Your task to perform on an android device: Search for seafood restaurants on Google Maps Image 0: 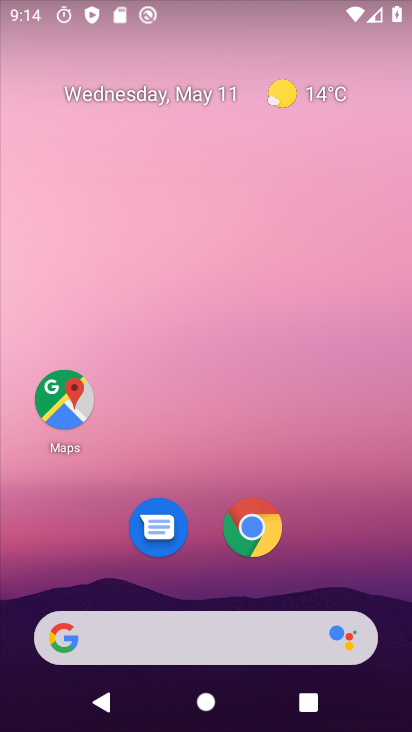
Step 0: drag from (264, 669) to (265, 146)
Your task to perform on an android device: Search for seafood restaurants on Google Maps Image 1: 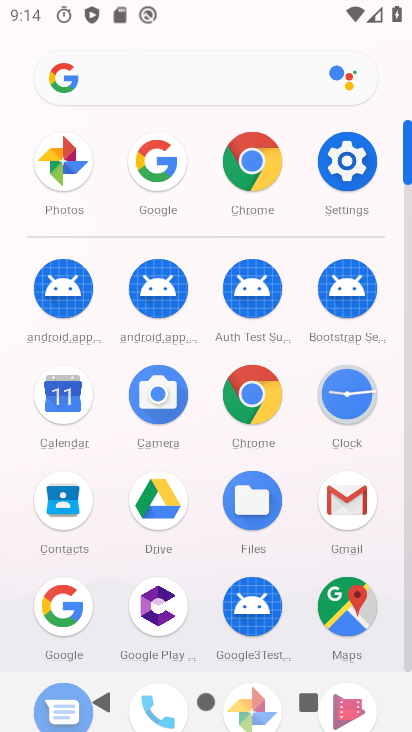
Step 1: click (360, 625)
Your task to perform on an android device: Search for seafood restaurants on Google Maps Image 2: 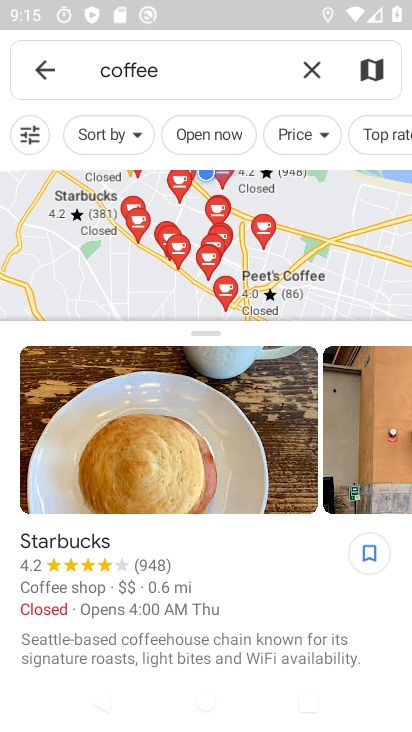
Step 2: click (320, 73)
Your task to perform on an android device: Search for seafood restaurants on Google Maps Image 3: 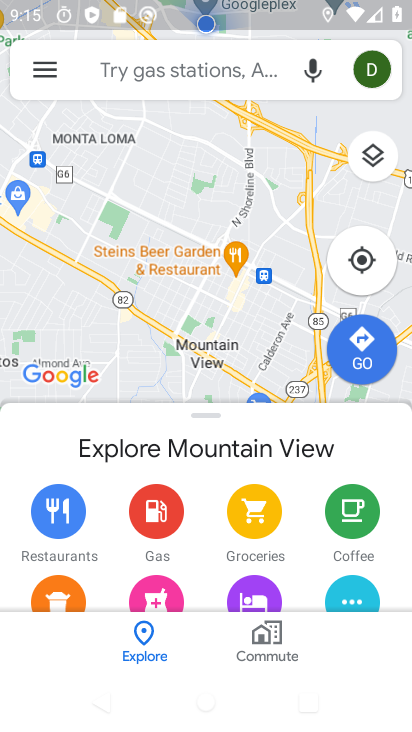
Step 3: click (218, 70)
Your task to perform on an android device: Search for seafood restaurants on Google Maps Image 4: 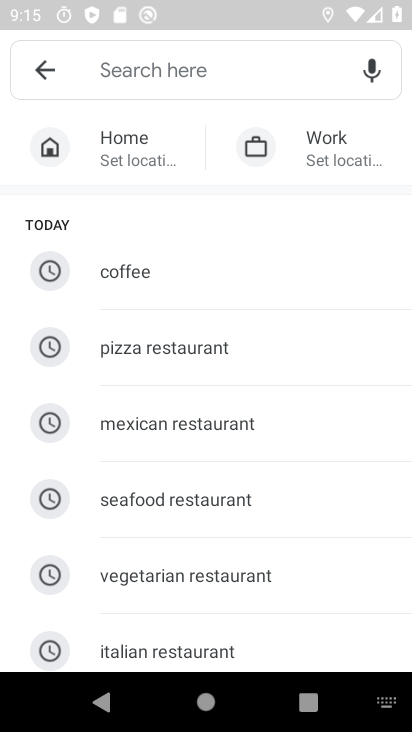
Step 4: click (189, 503)
Your task to perform on an android device: Search for seafood restaurants on Google Maps Image 5: 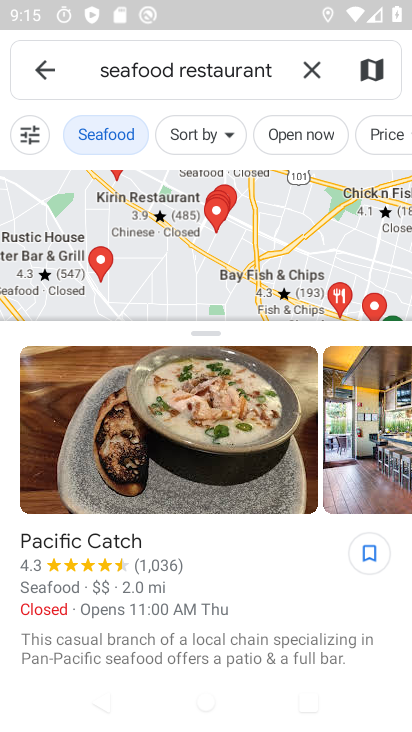
Step 5: task complete